Your task to perform on an android device: open a new tab in the chrome app Image 0: 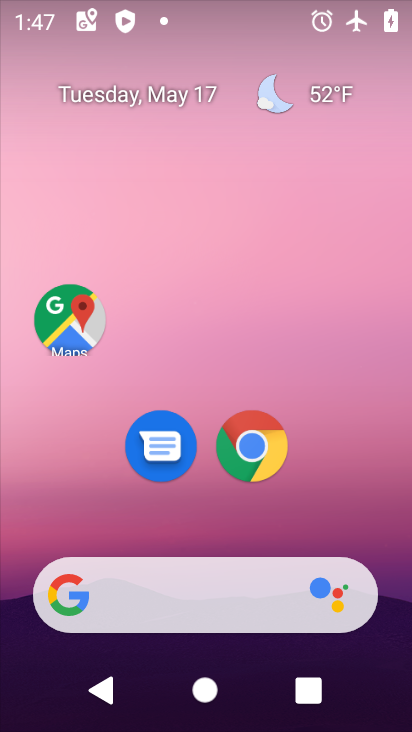
Step 0: click (244, 448)
Your task to perform on an android device: open a new tab in the chrome app Image 1: 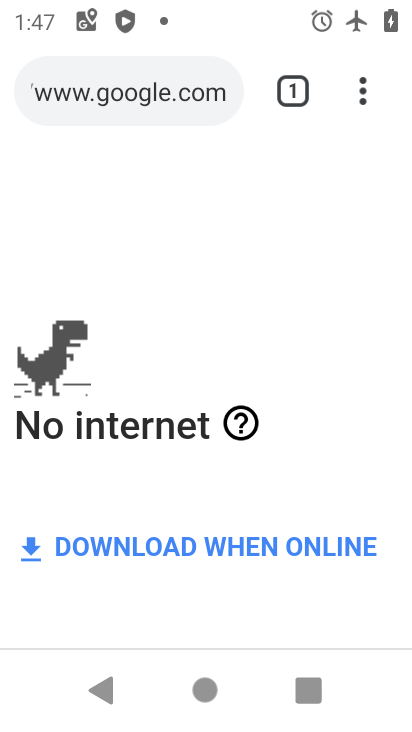
Step 1: press home button
Your task to perform on an android device: open a new tab in the chrome app Image 2: 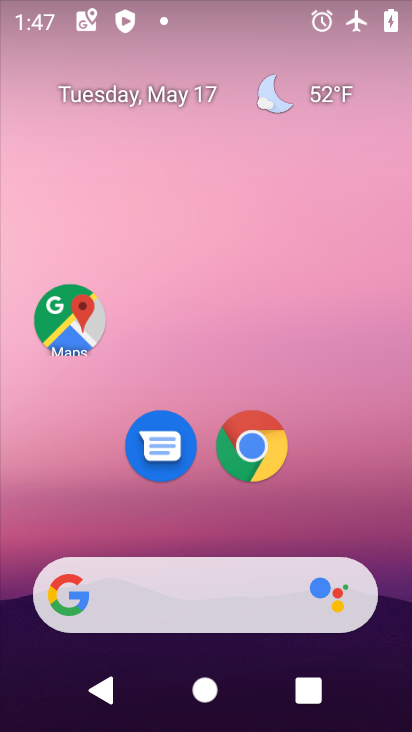
Step 2: drag from (220, 459) to (277, 201)
Your task to perform on an android device: open a new tab in the chrome app Image 3: 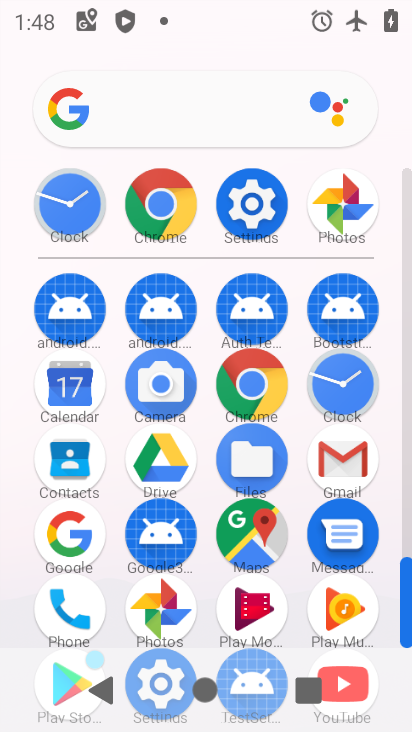
Step 3: click (246, 200)
Your task to perform on an android device: open a new tab in the chrome app Image 4: 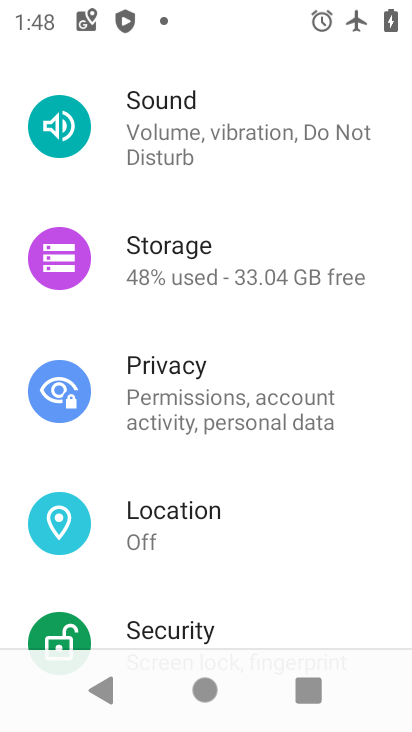
Step 4: drag from (257, 207) to (277, 614)
Your task to perform on an android device: open a new tab in the chrome app Image 5: 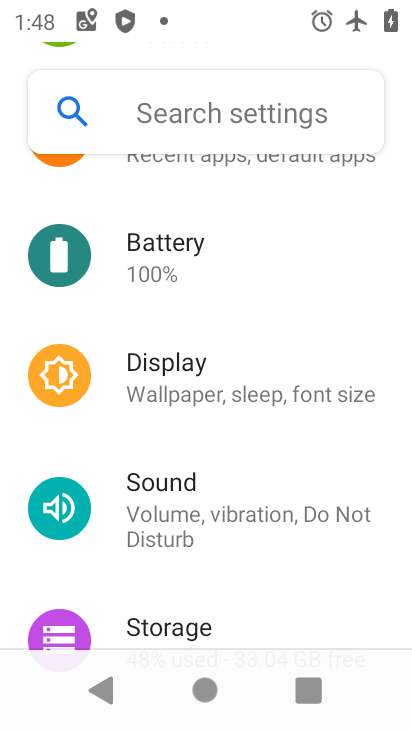
Step 5: drag from (260, 242) to (286, 620)
Your task to perform on an android device: open a new tab in the chrome app Image 6: 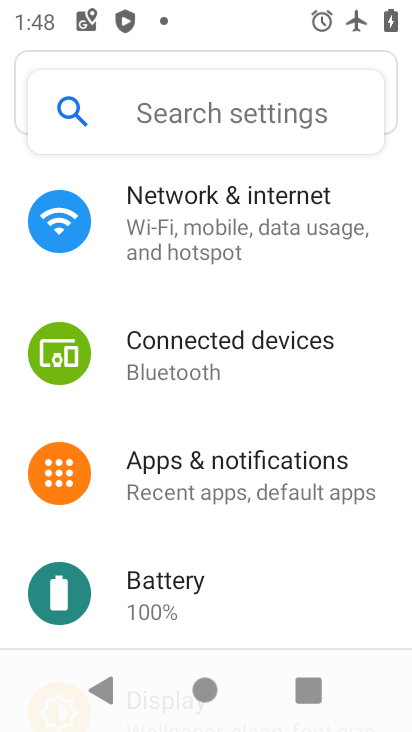
Step 6: click (231, 223)
Your task to perform on an android device: open a new tab in the chrome app Image 7: 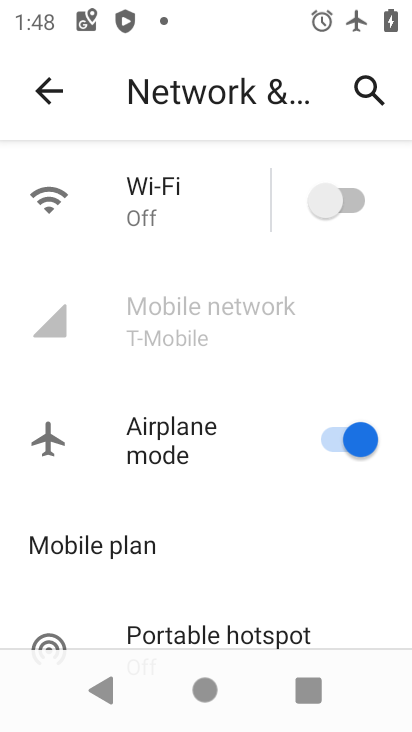
Step 7: click (342, 199)
Your task to perform on an android device: open a new tab in the chrome app Image 8: 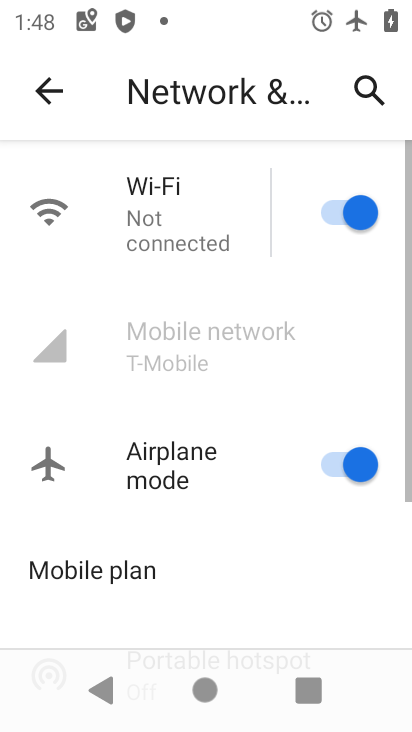
Step 8: click (324, 448)
Your task to perform on an android device: open a new tab in the chrome app Image 9: 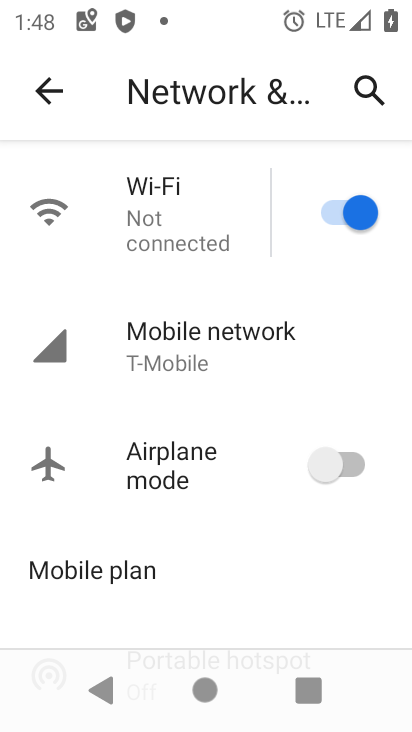
Step 9: task complete